Your task to perform on an android device: Open Google Image 0: 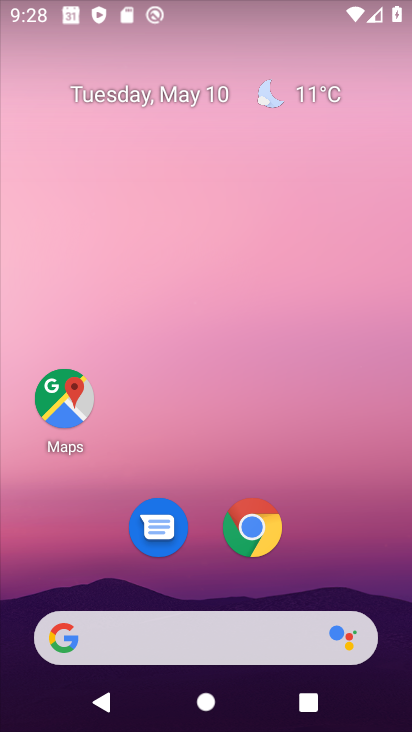
Step 0: drag from (327, 480) to (270, 46)
Your task to perform on an android device: Open Google Image 1: 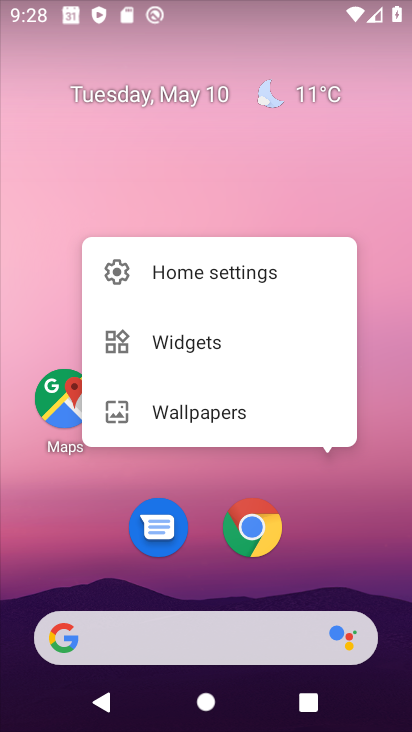
Step 1: drag from (383, 593) to (365, 89)
Your task to perform on an android device: Open Google Image 2: 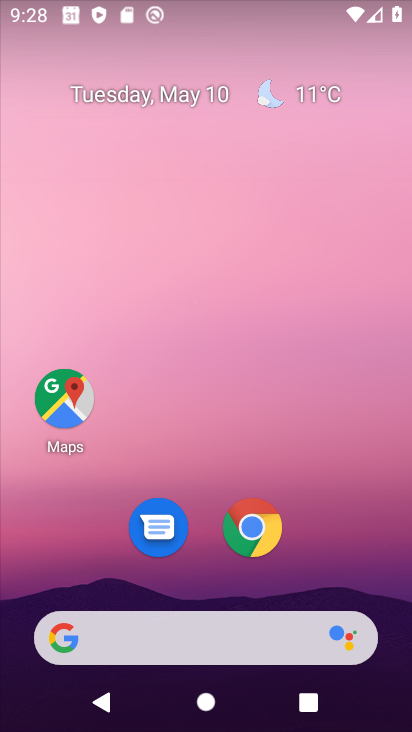
Step 2: drag from (300, 589) to (305, 0)
Your task to perform on an android device: Open Google Image 3: 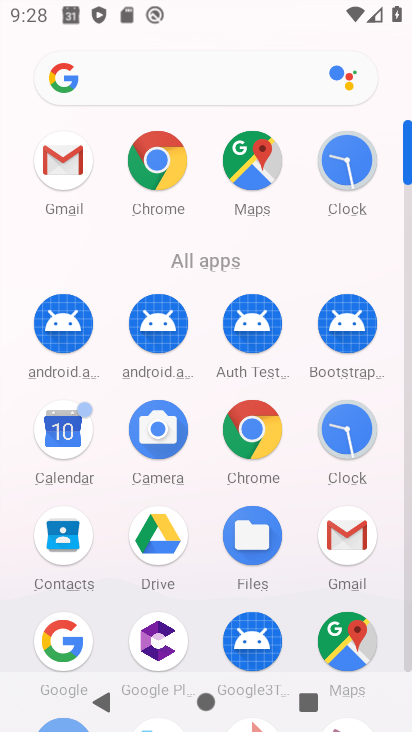
Step 3: click (61, 653)
Your task to perform on an android device: Open Google Image 4: 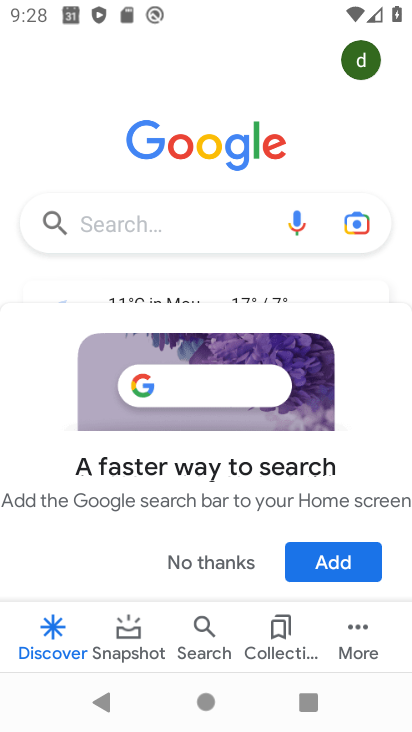
Step 4: task complete